Your task to perform on an android device: toggle notification dots Image 0: 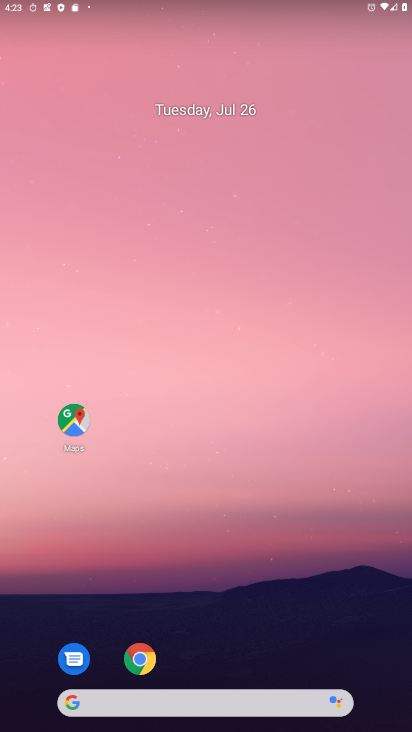
Step 0: press home button
Your task to perform on an android device: toggle notification dots Image 1: 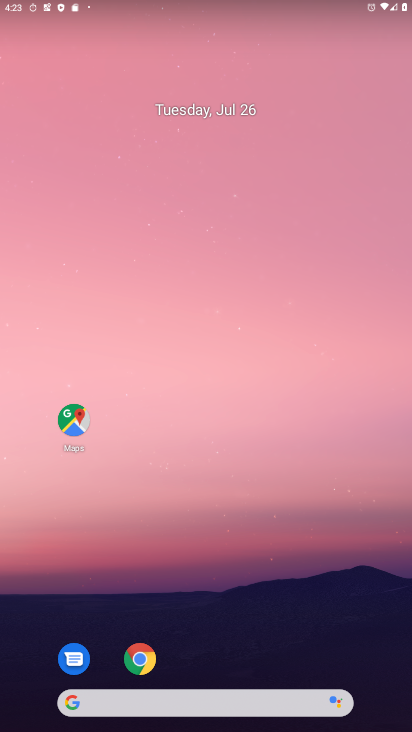
Step 1: drag from (246, 506) to (253, 44)
Your task to perform on an android device: toggle notification dots Image 2: 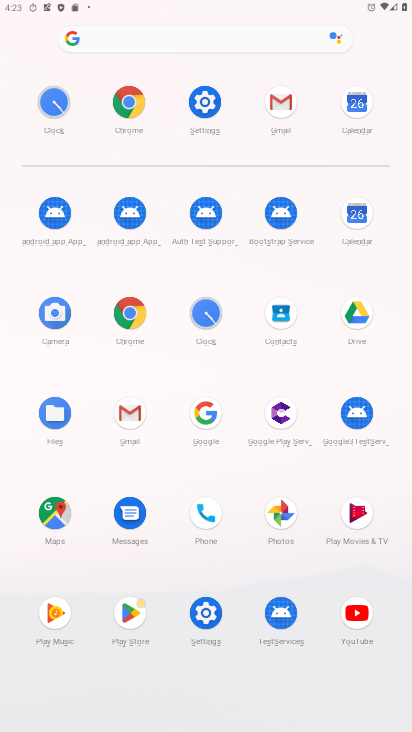
Step 2: click (204, 97)
Your task to perform on an android device: toggle notification dots Image 3: 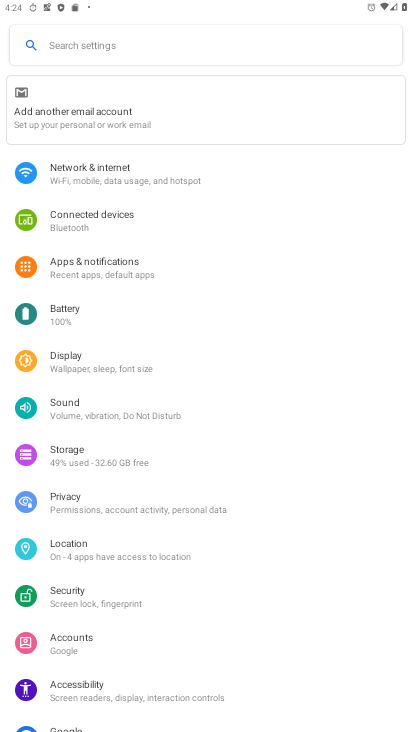
Step 3: click (103, 269)
Your task to perform on an android device: toggle notification dots Image 4: 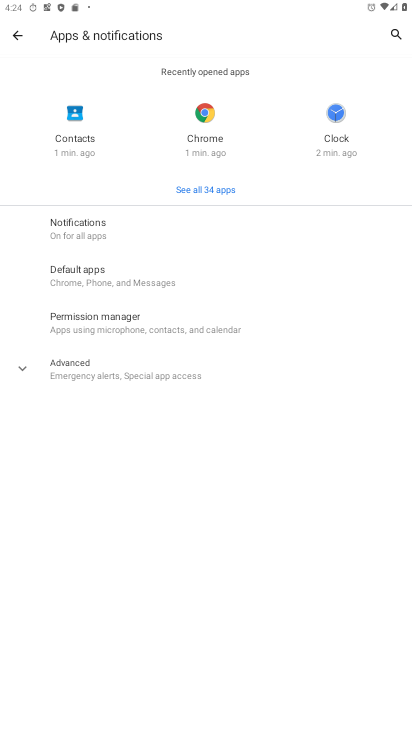
Step 4: click (83, 233)
Your task to perform on an android device: toggle notification dots Image 5: 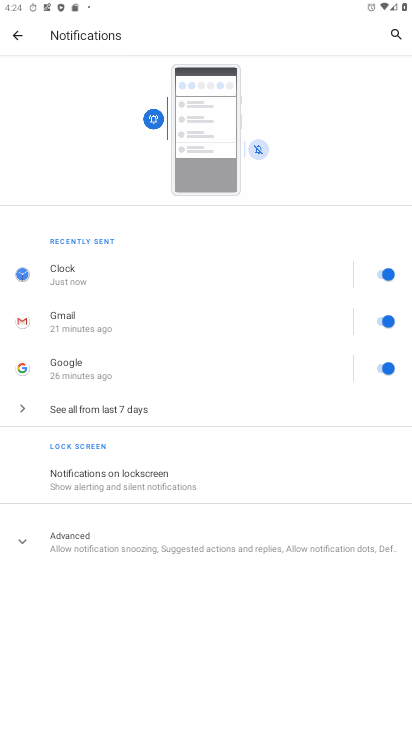
Step 5: click (60, 544)
Your task to perform on an android device: toggle notification dots Image 6: 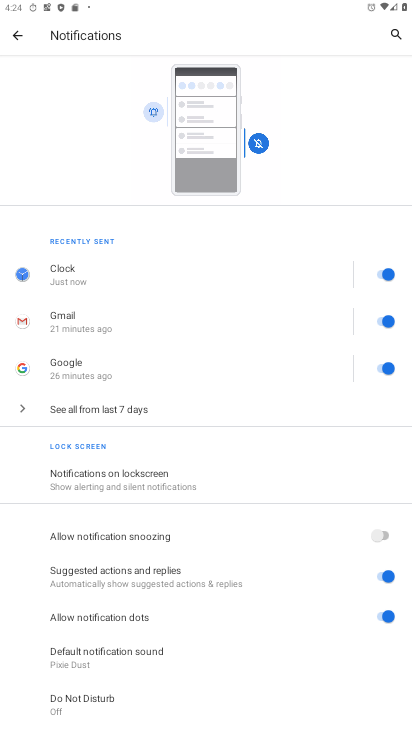
Step 6: click (385, 612)
Your task to perform on an android device: toggle notification dots Image 7: 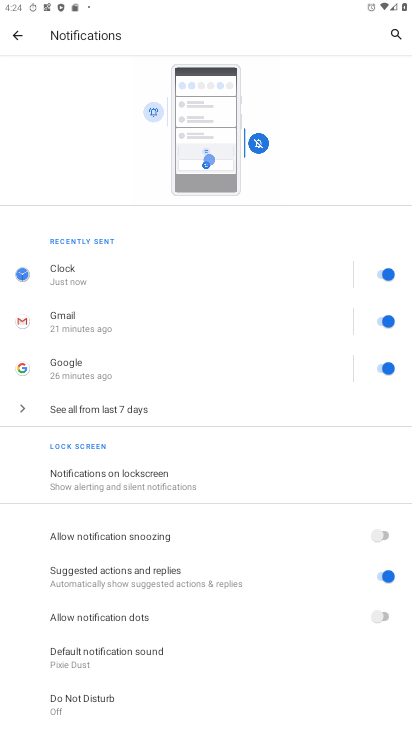
Step 7: task complete